Your task to perform on an android device: Is it going to rain today? Image 0: 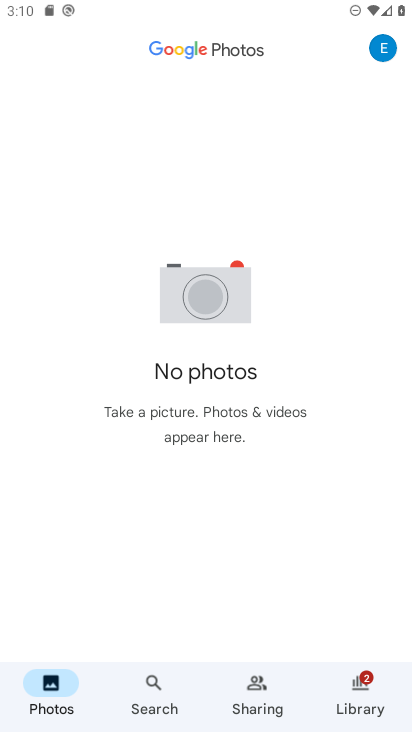
Step 0: press home button
Your task to perform on an android device: Is it going to rain today? Image 1: 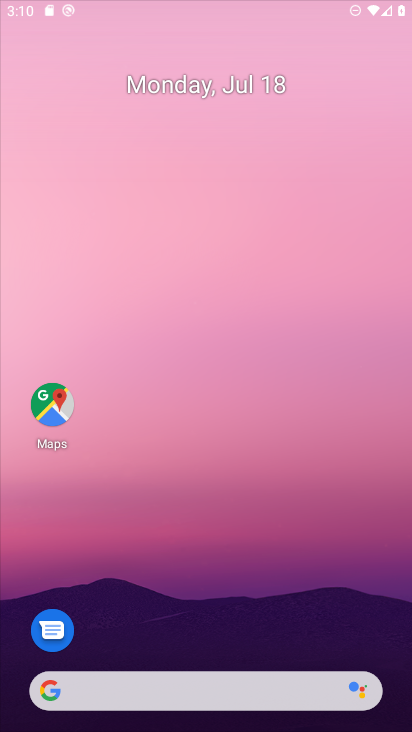
Step 1: drag from (279, 678) to (371, 63)
Your task to perform on an android device: Is it going to rain today? Image 2: 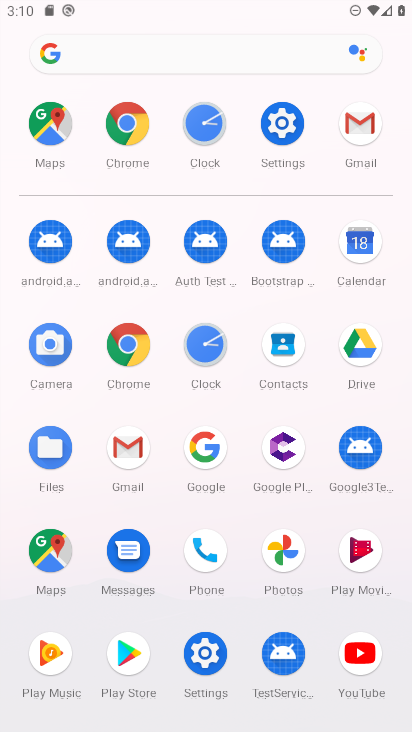
Step 2: click (112, 335)
Your task to perform on an android device: Is it going to rain today? Image 3: 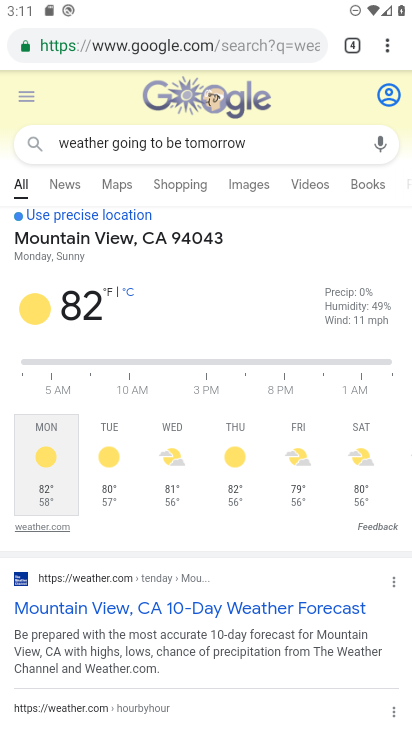
Step 3: type "is it going to rain today"
Your task to perform on an android device: Is it going to rain today? Image 4: 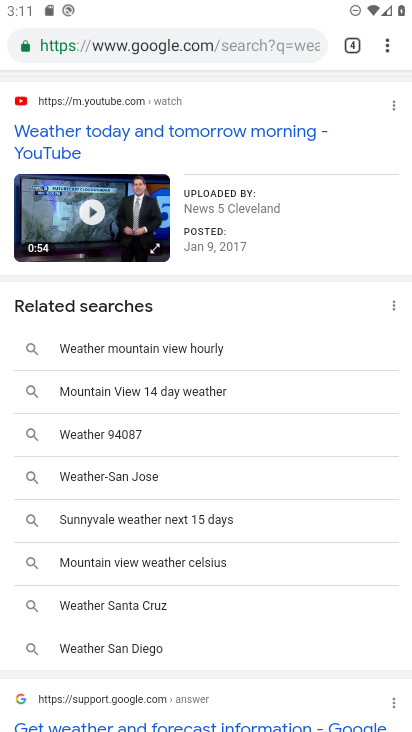
Step 4: drag from (350, 131) to (339, 657)
Your task to perform on an android device: Is it going to rain today? Image 5: 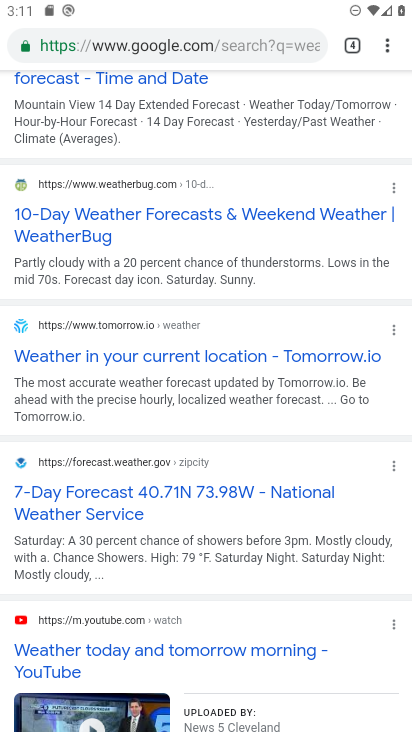
Step 5: drag from (269, 183) to (289, 691)
Your task to perform on an android device: Is it going to rain today? Image 6: 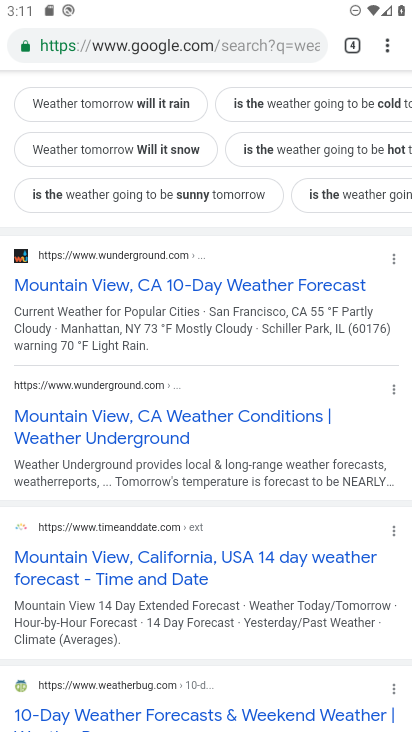
Step 6: drag from (193, 154) to (231, 600)
Your task to perform on an android device: Is it going to rain today? Image 7: 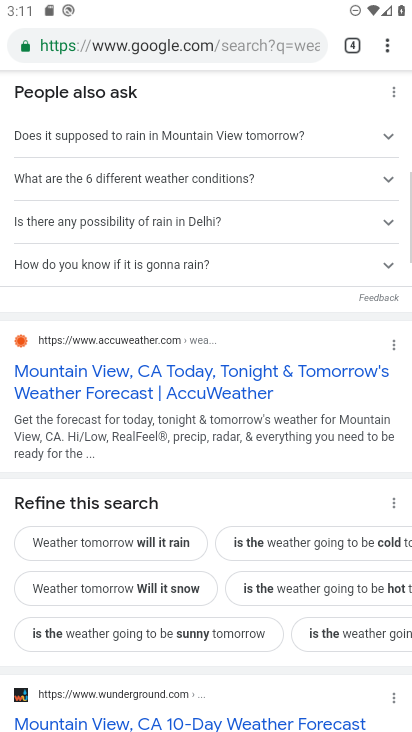
Step 7: drag from (234, 112) to (237, 666)
Your task to perform on an android device: Is it going to rain today? Image 8: 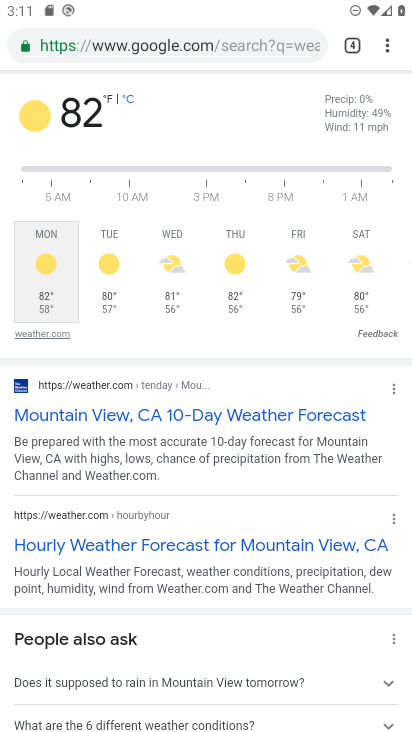
Step 8: drag from (244, 137) to (239, 534)
Your task to perform on an android device: Is it going to rain today? Image 9: 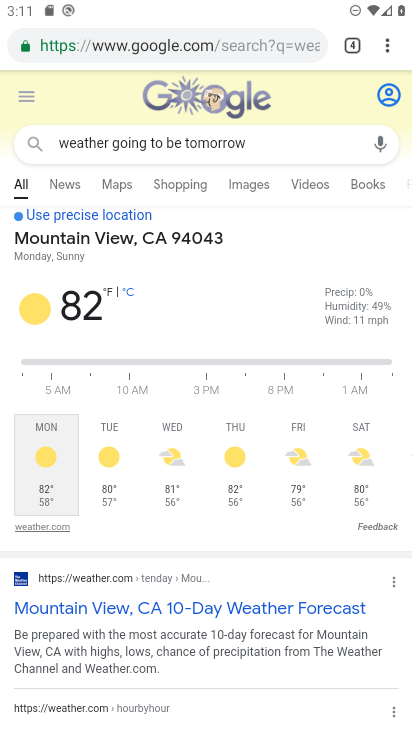
Step 9: click (225, 42)
Your task to perform on an android device: Is it going to rain today? Image 10: 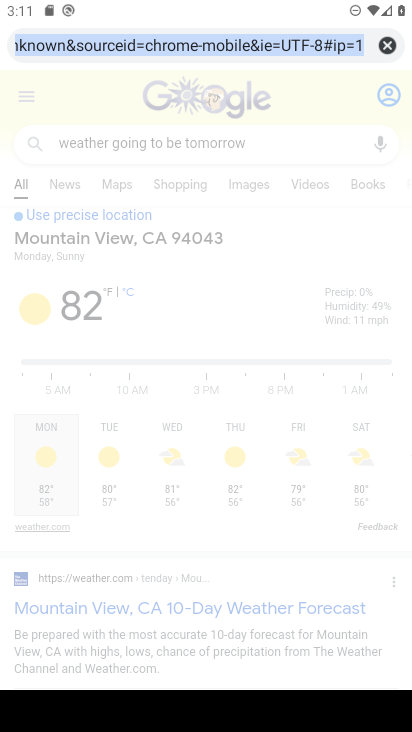
Step 10: type "is it going to be rain today"
Your task to perform on an android device: Is it going to rain today? Image 11: 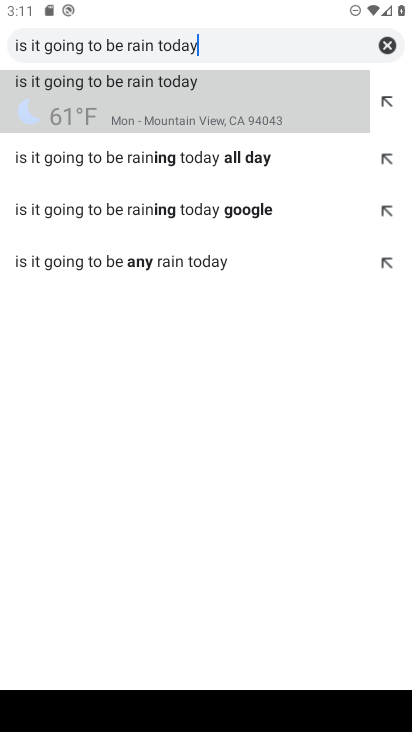
Step 11: click (258, 85)
Your task to perform on an android device: Is it going to rain today? Image 12: 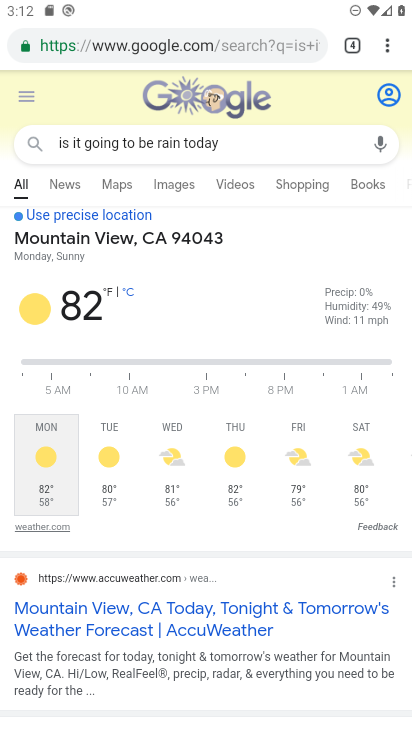
Step 12: task complete